Your task to perform on an android device: turn on airplane mode Image 0: 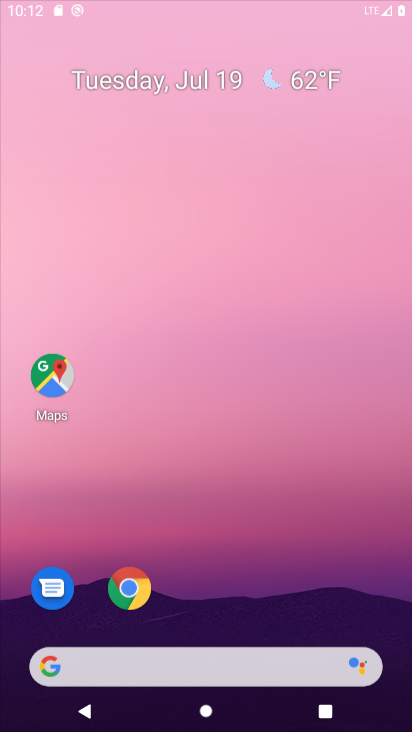
Step 0: press home button
Your task to perform on an android device: turn on airplane mode Image 1: 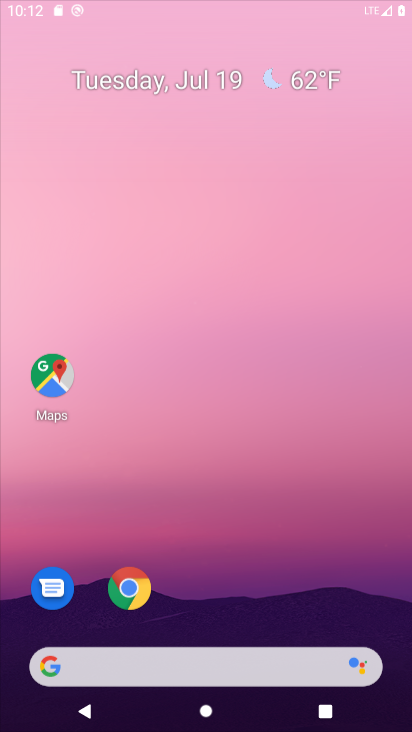
Step 1: click (196, 75)
Your task to perform on an android device: turn on airplane mode Image 2: 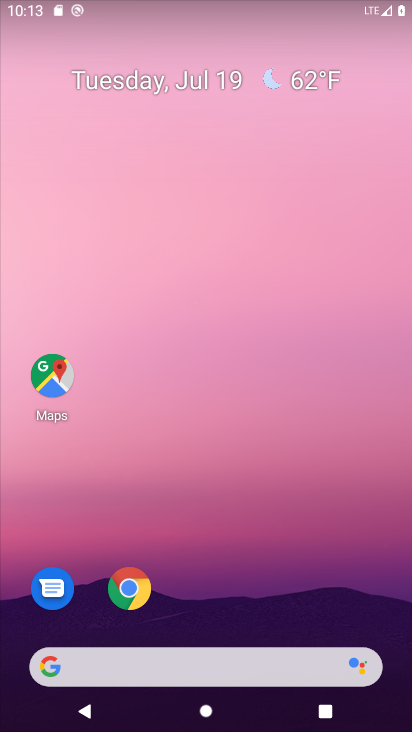
Step 2: drag from (234, 562) to (244, 5)
Your task to perform on an android device: turn on airplane mode Image 3: 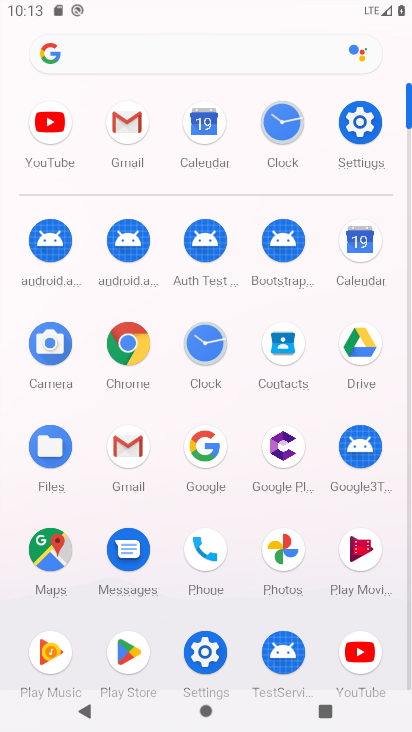
Step 3: click (201, 352)
Your task to perform on an android device: turn on airplane mode Image 4: 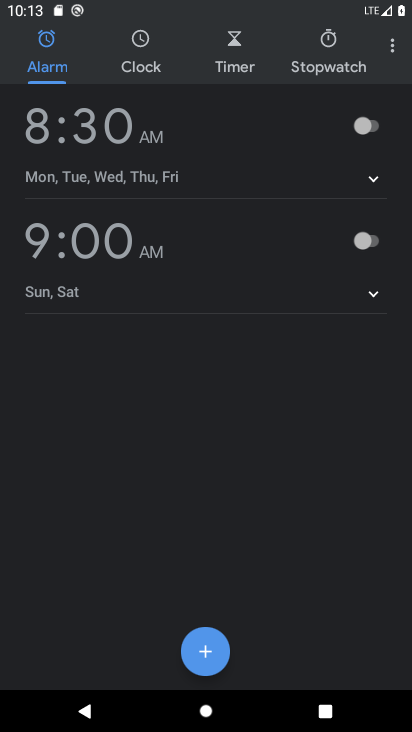
Step 4: press back button
Your task to perform on an android device: turn on airplane mode Image 5: 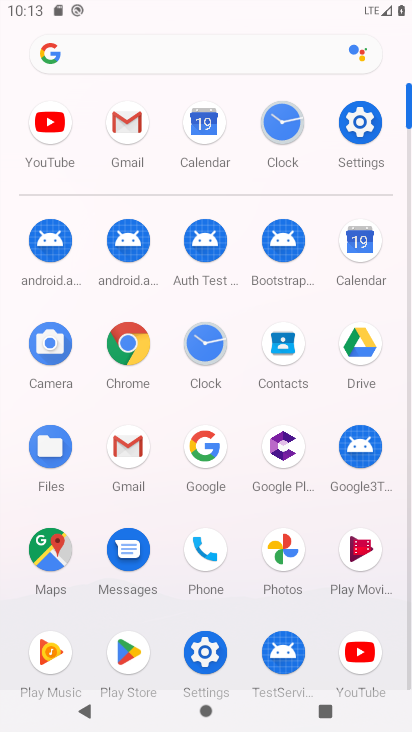
Step 5: click (364, 137)
Your task to perform on an android device: turn on airplane mode Image 6: 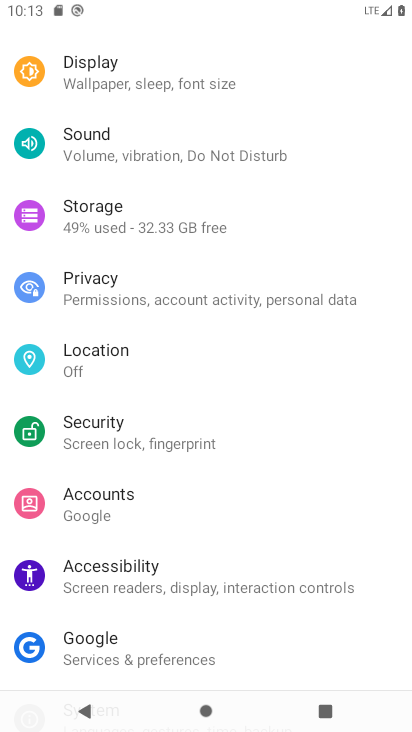
Step 6: drag from (210, 269) to (136, 477)
Your task to perform on an android device: turn on airplane mode Image 7: 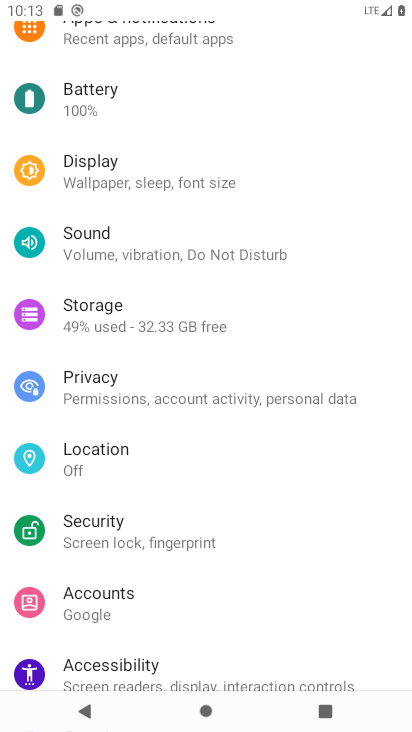
Step 7: drag from (128, 213) to (133, 606)
Your task to perform on an android device: turn on airplane mode Image 8: 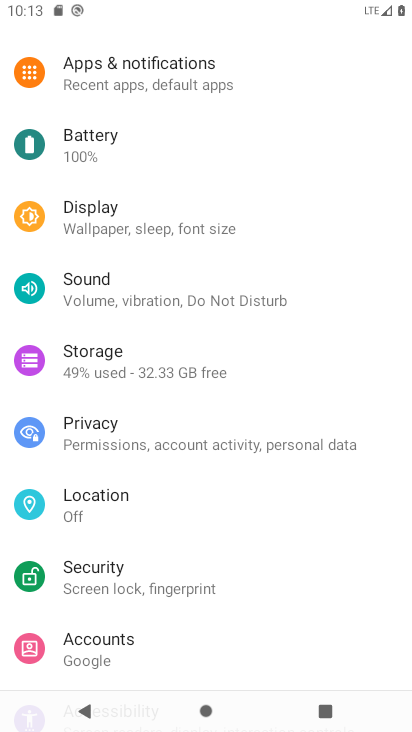
Step 8: drag from (136, 147) to (121, 488)
Your task to perform on an android device: turn on airplane mode Image 9: 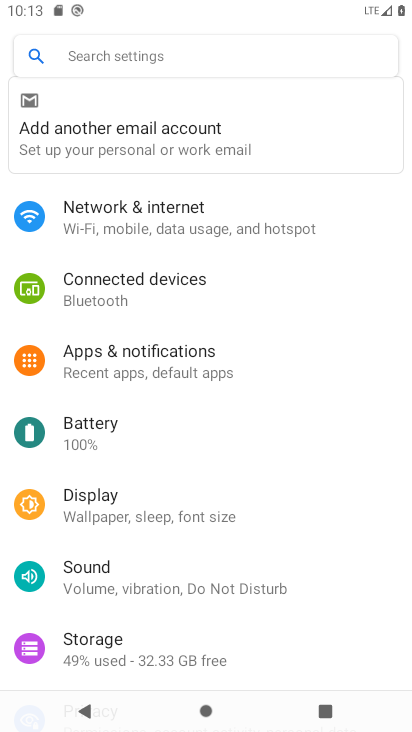
Step 9: click (146, 223)
Your task to perform on an android device: turn on airplane mode Image 10: 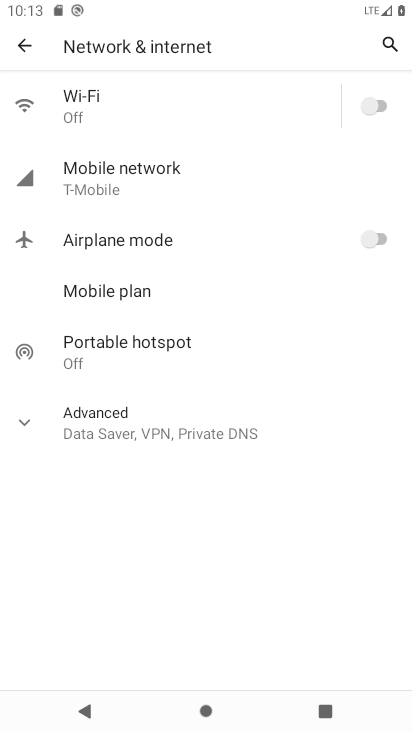
Step 10: click (381, 243)
Your task to perform on an android device: turn on airplane mode Image 11: 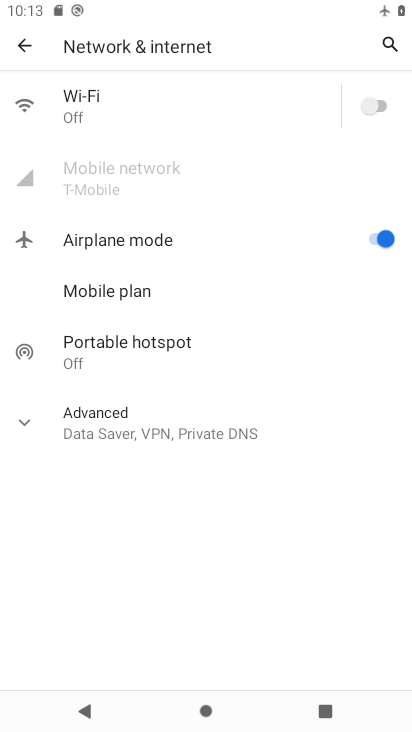
Step 11: task complete